Your task to perform on an android device: Search for Mexican restaurants on Maps Image 0: 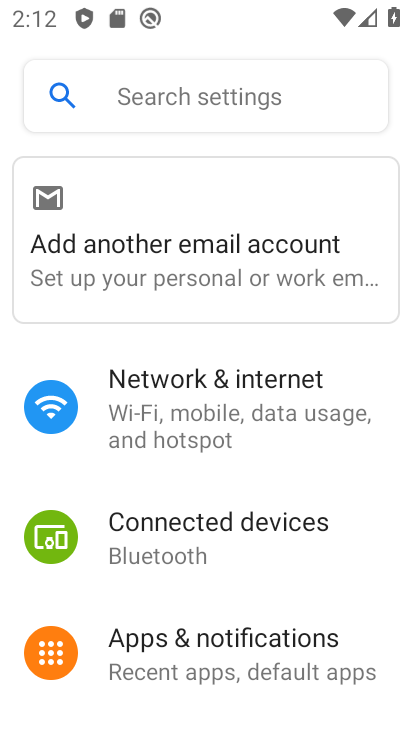
Step 0: press home button
Your task to perform on an android device: Search for Mexican restaurants on Maps Image 1: 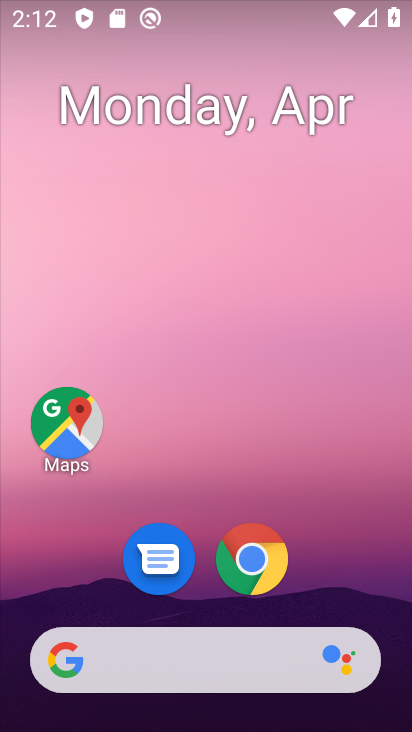
Step 1: click (67, 421)
Your task to perform on an android device: Search for Mexican restaurants on Maps Image 2: 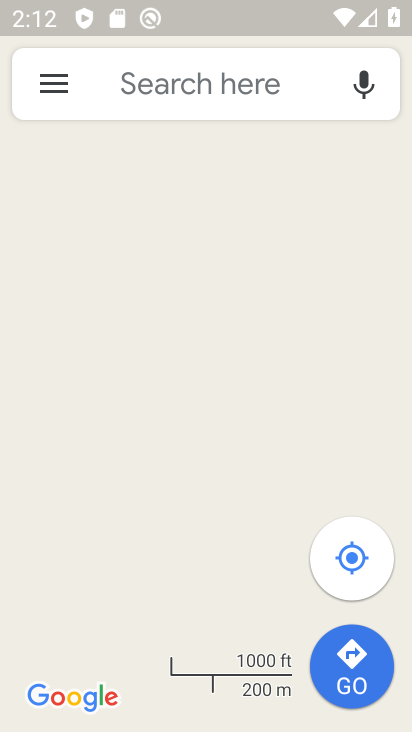
Step 2: click (223, 80)
Your task to perform on an android device: Search for Mexican restaurants on Maps Image 3: 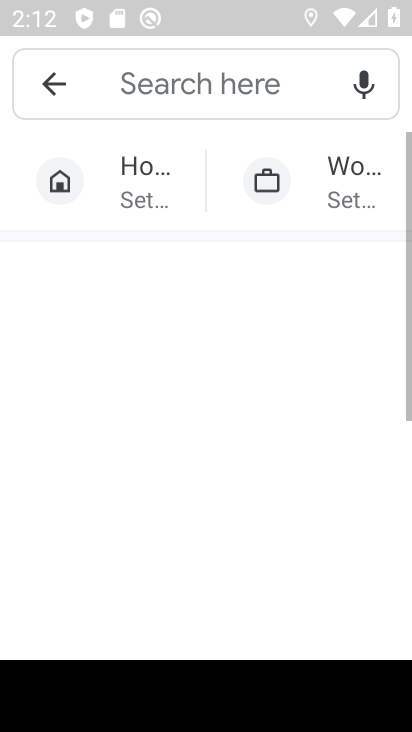
Step 3: click (225, 90)
Your task to perform on an android device: Search for Mexican restaurants on Maps Image 4: 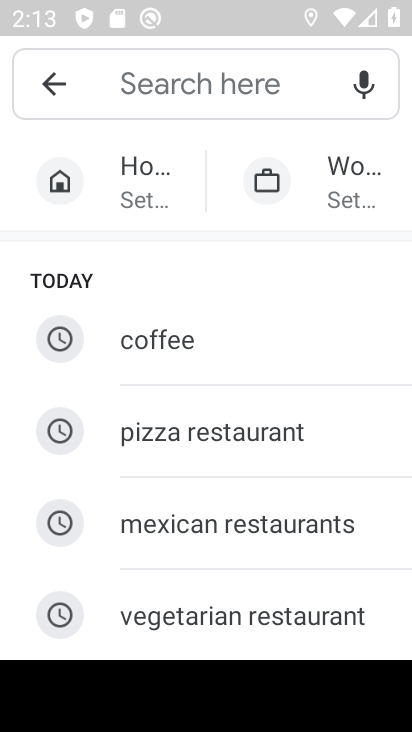
Step 4: click (194, 526)
Your task to perform on an android device: Search for Mexican restaurants on Maps Image 5: 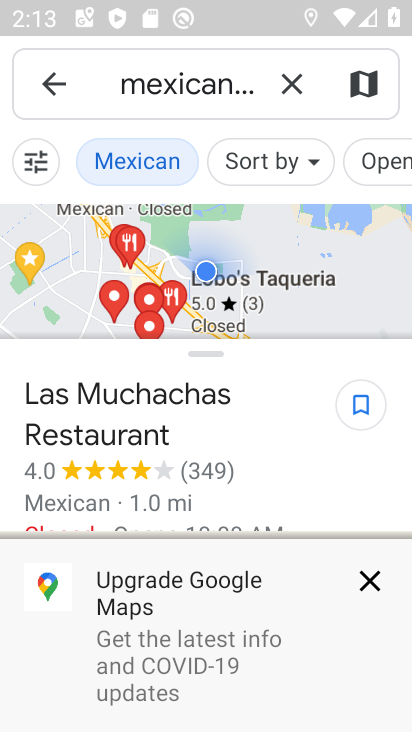
Step 5: task complete